Your task to perform on an android device: remove spam from my inbox in the gmail app Image 0: 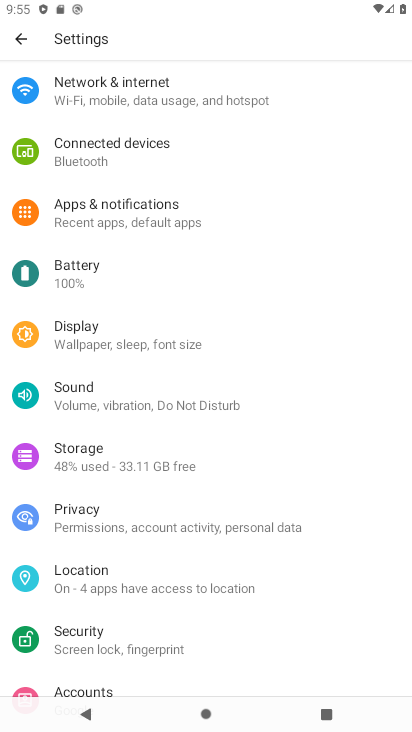
Step 0: press home button
Your task to perform on an android device: remove spam from my inbox in the gmail app Image 1: 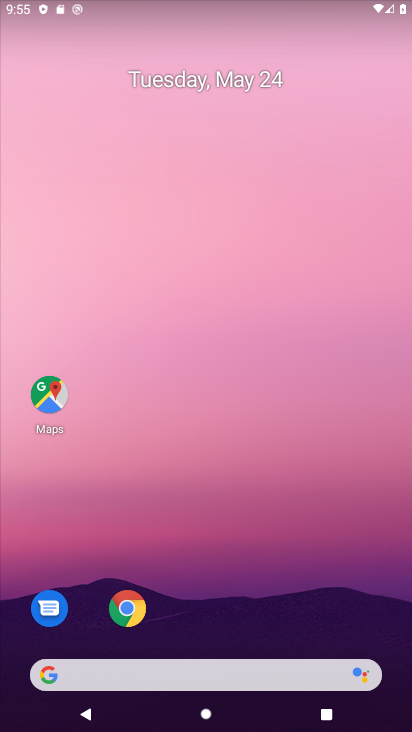
Step 1: drag from (367, 616) to (312, 82)
Your task to perform on an android device: remove spam from my inbox in the gmail app Image 2: 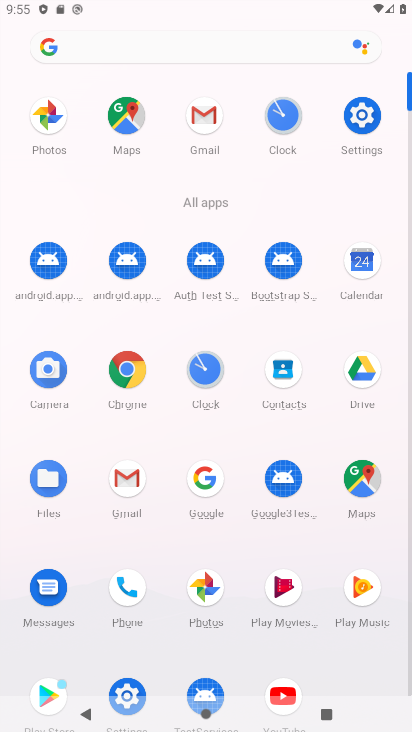
Step 2: click (126, 476)
Your task to perform on an android device: remove spam from my inbox in the gmail app Image 3: 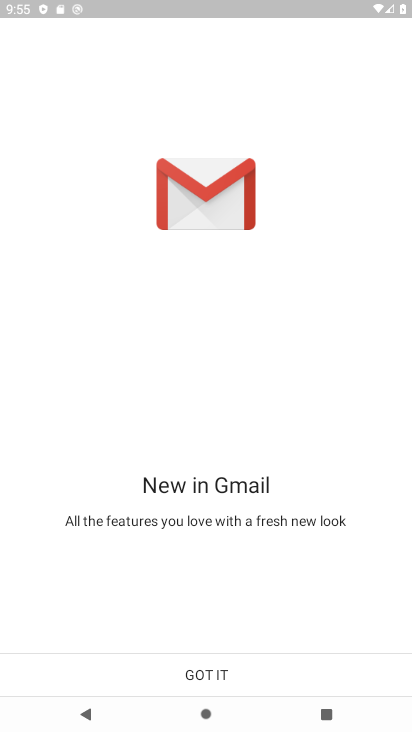
Step 3: click (211, 672)
Your task to perform on an android device: remove spam from my inbox in the gmail app Image 4: 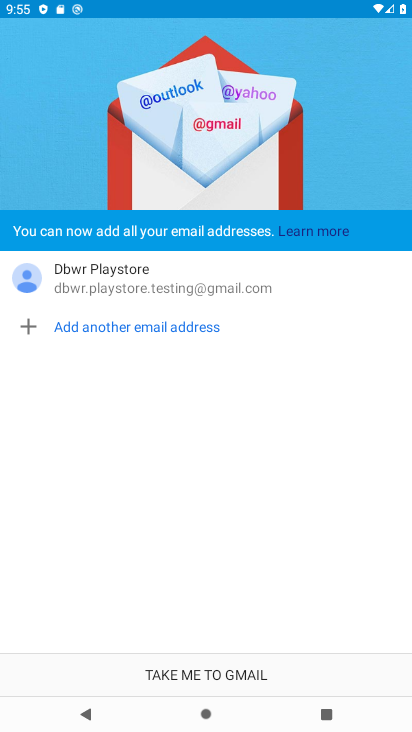
Step 4: click (201, 667)
Your task to perform on an android device: remove spam from my inbox in the gmail app Image 5: 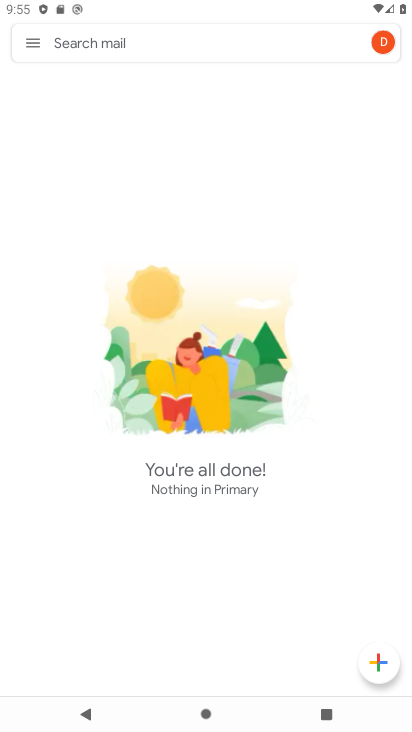
Step 5: click (29, 34)
Your task to perform on an android device: remove spam from my inbox in the gmail app Image 6: 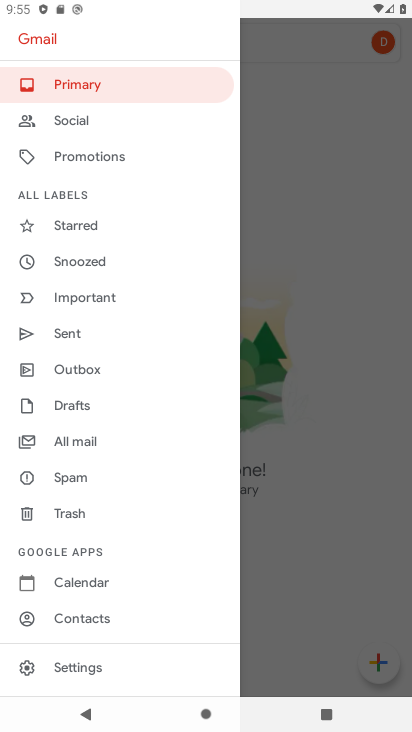
Step 6: click (78, 473)
Your task to perform on an android device: remove spam from my inbox in the gmail app Image 7: 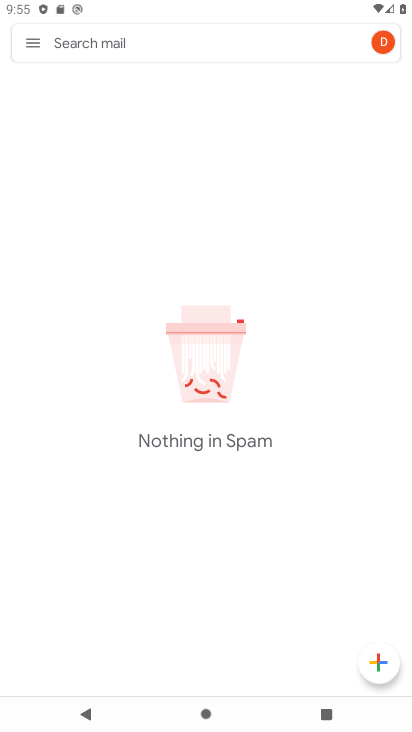
Step 7: task complete